Your task to perform on an android device: empty trash in google photos Image 0: 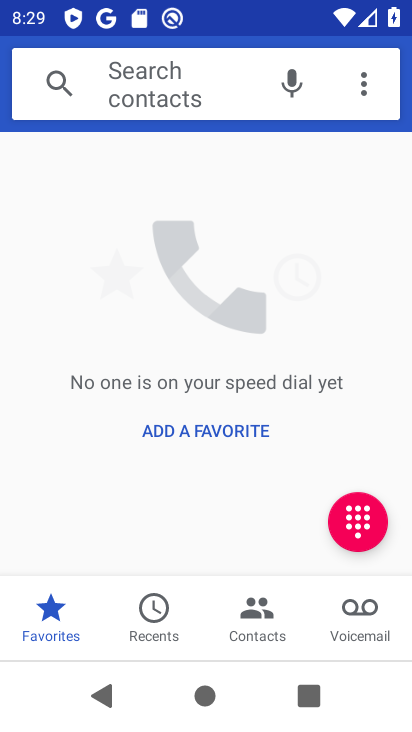
Step 0: press home button
Your task to perform on an android device: empty trash in google photos Image 1: 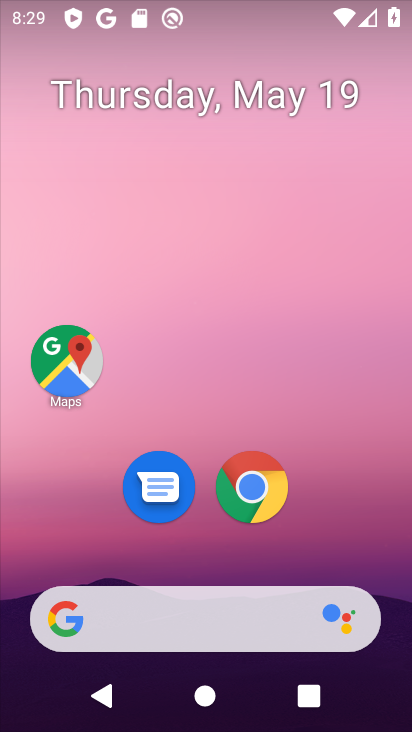
Step 1: drag from (238, 559) to (210, 21)
Your task to perform on an android device: empty trash in google photos Image 2: 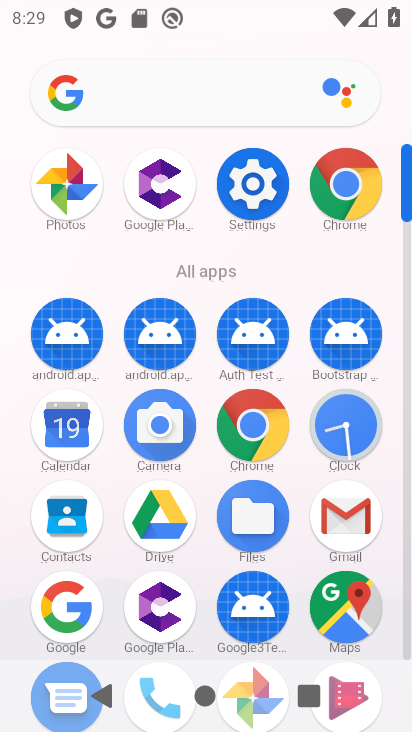
Step 2: drag from (203, 641) to (156, 268)
Your task to perform on an android device: empty trash in google photos Image 3: 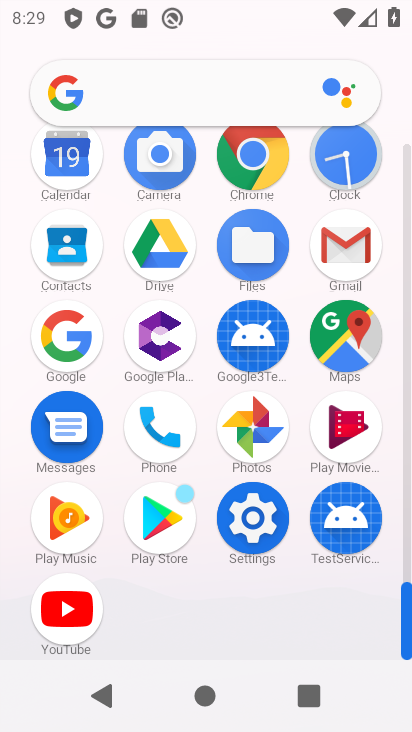
Step 3: click (254, 446)
Your task to perform on an android device: empty trash in google photos Image 4: 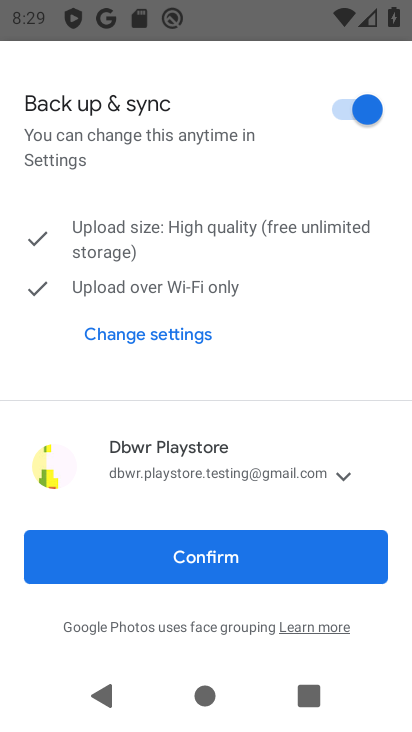
Step 4: click (221, 567)
Your task to perform on an android device: empty trash in google photos Image 5: 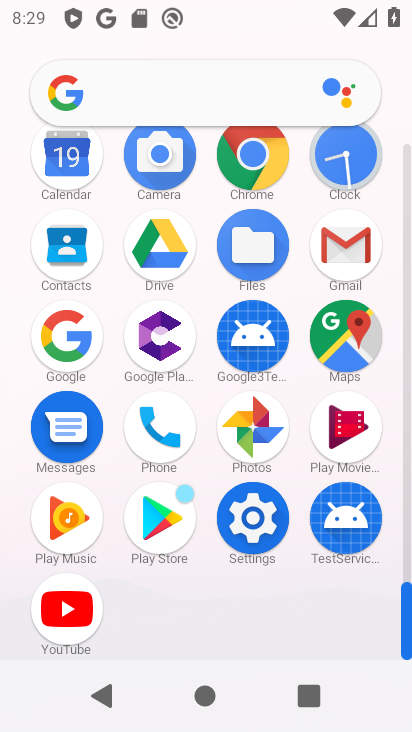
Step 5: click (238, 432)
Your task to perform on an android device: empty trash in google photos Image 6: 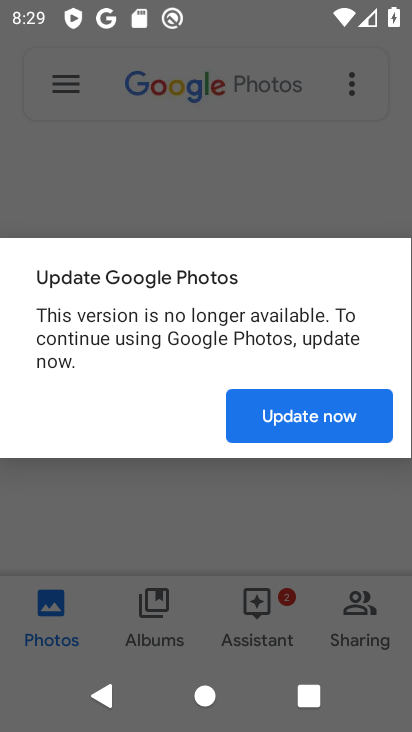
Step 6: click (324, 420)
Your task to perform on an android device: empty trash in google photos Image 7: 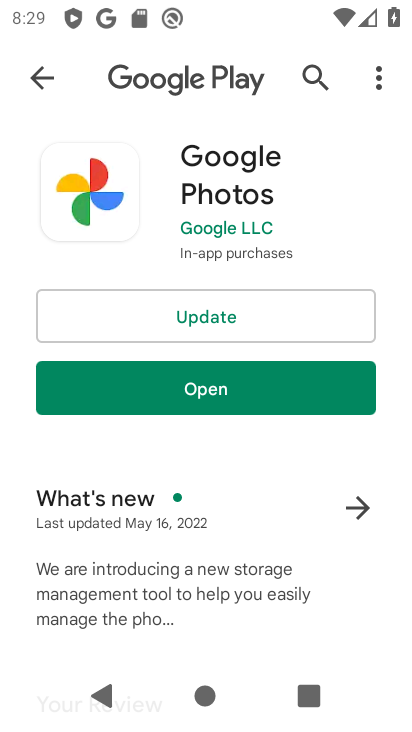
Step 7: click (318, 387)
Your task to perform on an android device: empty trash in google photos Image 8: 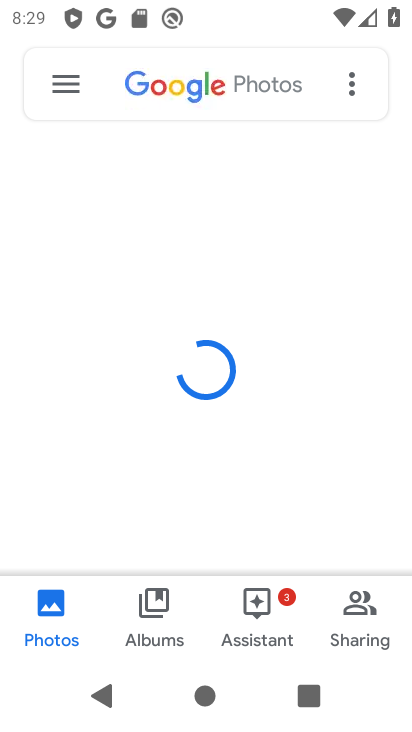
Step 8: click (59, 94)
Your task to perform on an android device: empty trash in google photos Image 9: 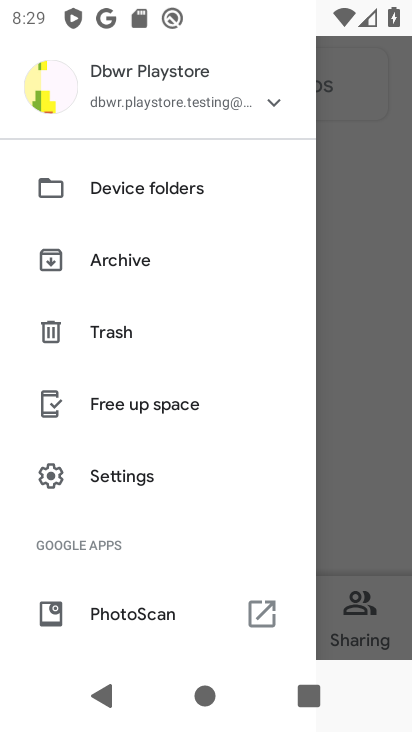
Step 9: click (134, 322)
Your task to perform on an android device: empty trash in google photos Image 10: 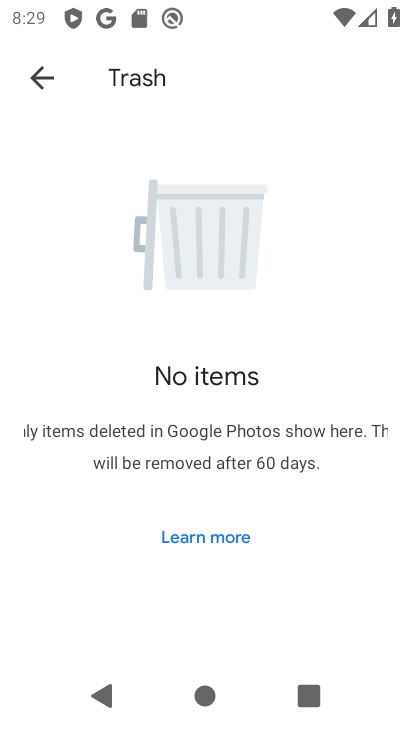
Step 10: task complete